Your task to perform on an android device: toggle improve location accuracy Image 0: 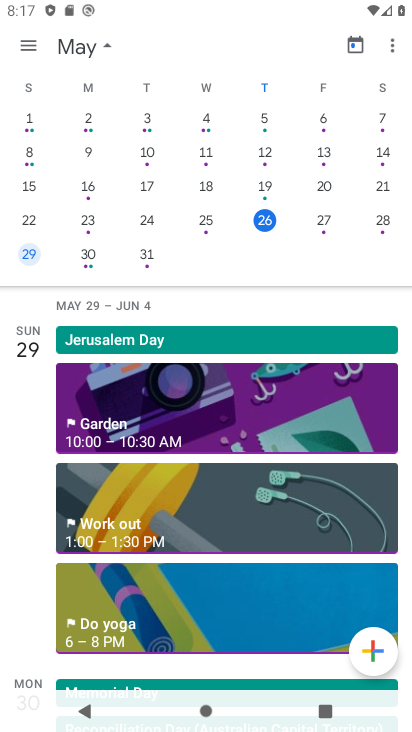
Step 0: press home button
Your task to perform on an android device: toggle improve location accuracy Image 1: 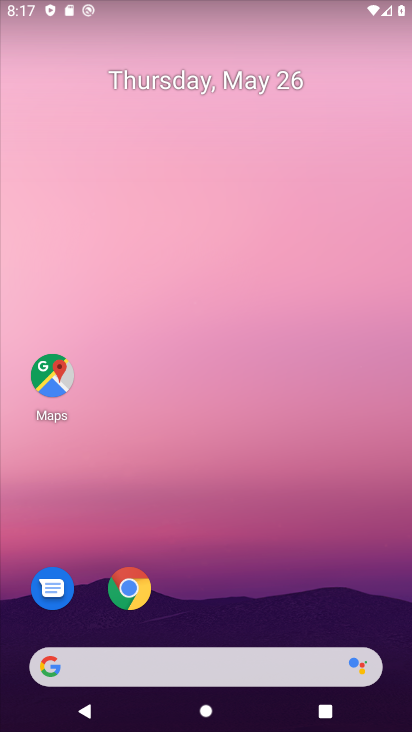
Step 1: drag from (255, 621) to (189, 53)
Your task to perform on an android device: toggle improve location accuracy Image 2: 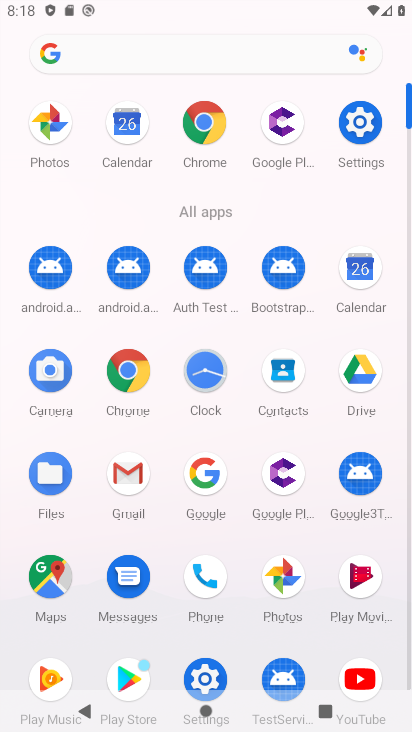
Step 2: click (359, 130)
Your task to perform on an android device: toggle improve location accuracy Image 3: 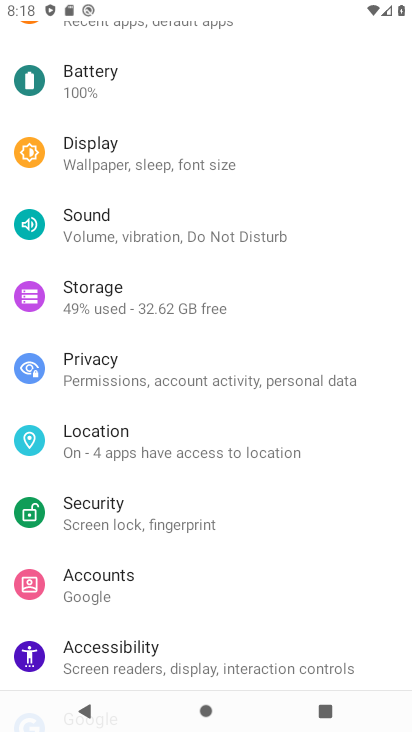
Step 3: click (157, 430)
Your task to perform on an android device: toggle improve location accuracy Image 4: 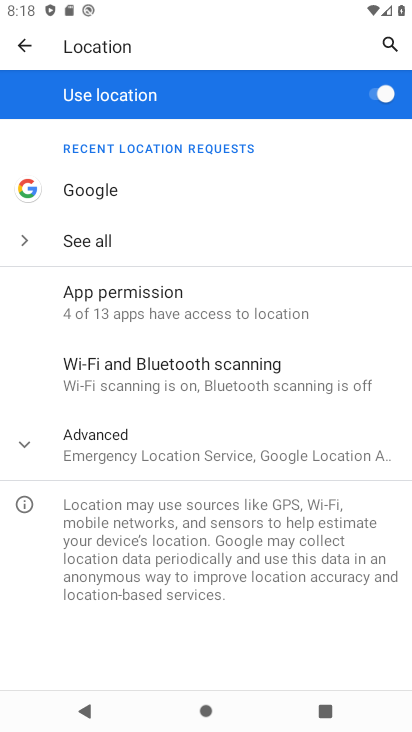
Step 4: click (155, 433)
Your task to perform on an android device: toggle improve location accuracy Image 5: 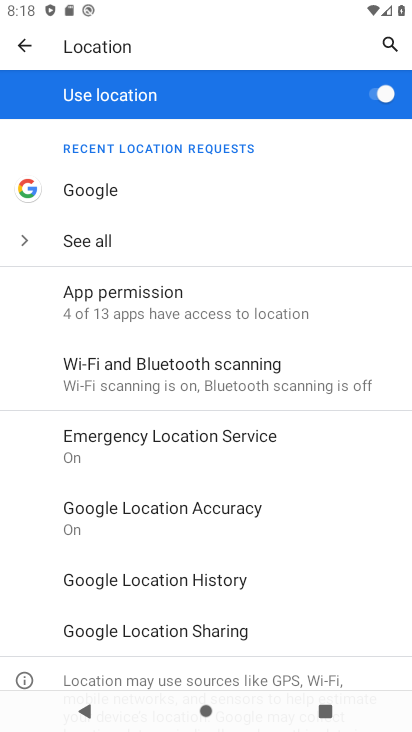
Step 5: click (182, 522)
Your task to perform on an android device: toggle improve location accuracy Image 6: 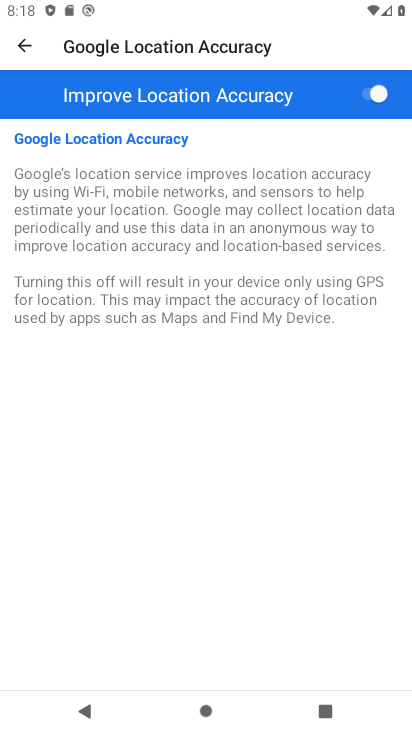
Step 6: click (354, 86)
Your task to perform on an android device: toggle improve location accuracy Image 7: 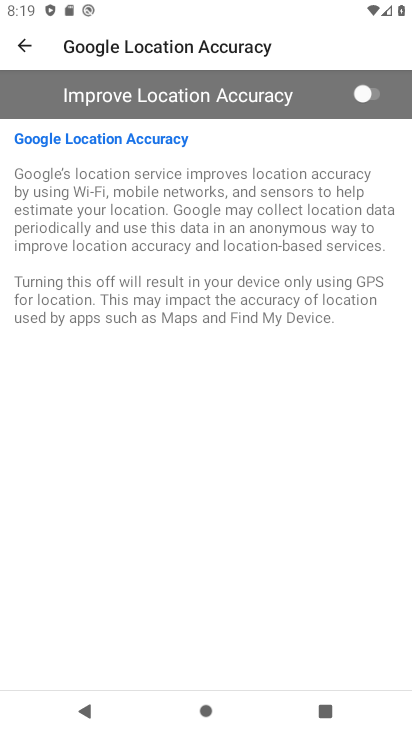
Step 7: task complete